Your task to perform on an android device: turn off airplane mode Image 0: 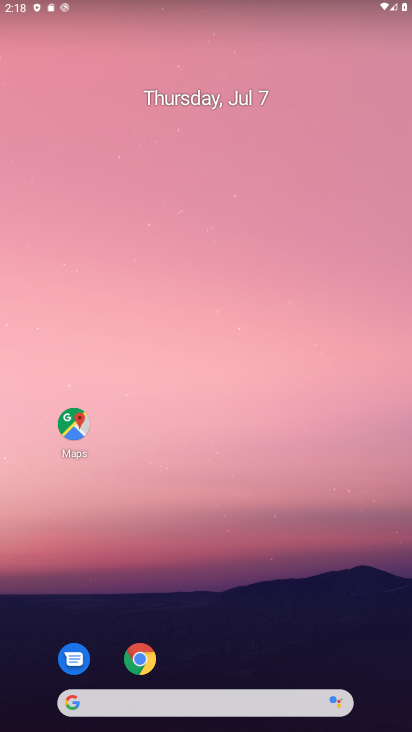
Step 0: press home button
Your task to perform on an android device: turn off airplane mode Image 1: 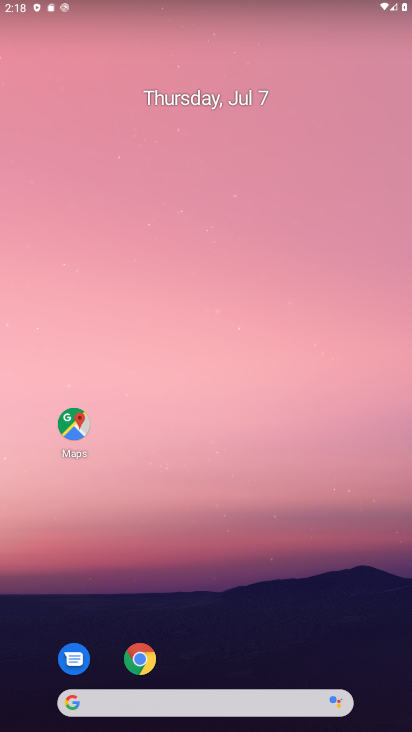
Step 1: task complete